Your task to perform on an android device: Go to location settings Image 0: 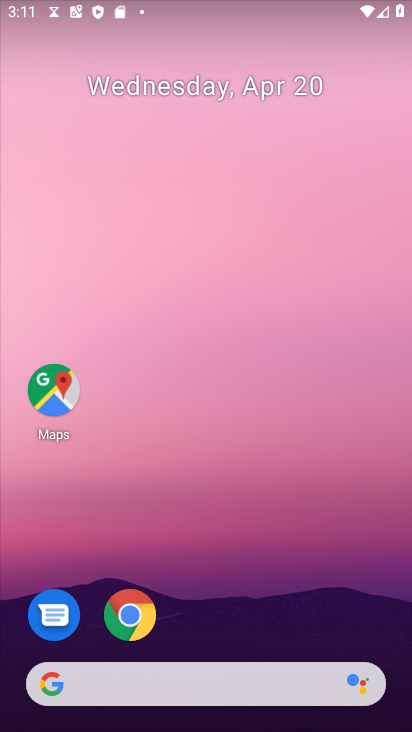
Step 0: drag from (173, 633) to (295, 94)
Your task to perform on an android device: Go to location settings Image 1: 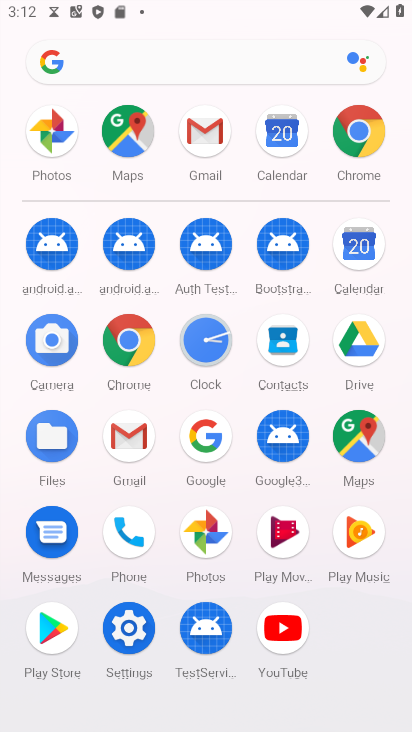
Step 1: click (107, 627)
Your task to perform on an android device: Go to location settings Image 2: 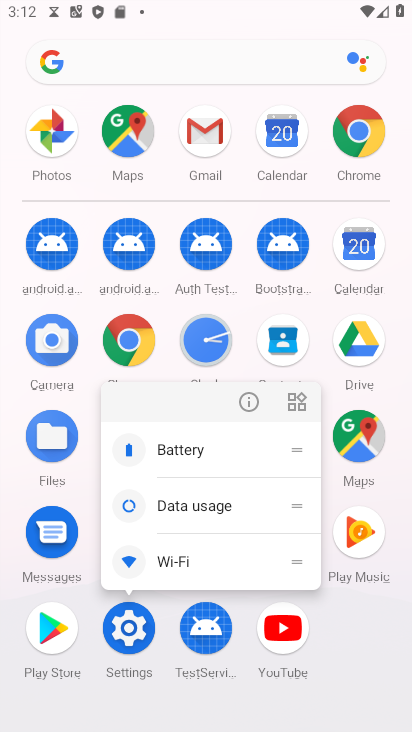
Step 2: click (251, 395)
Your task to perform on an android device: Go to location settings Image 3: 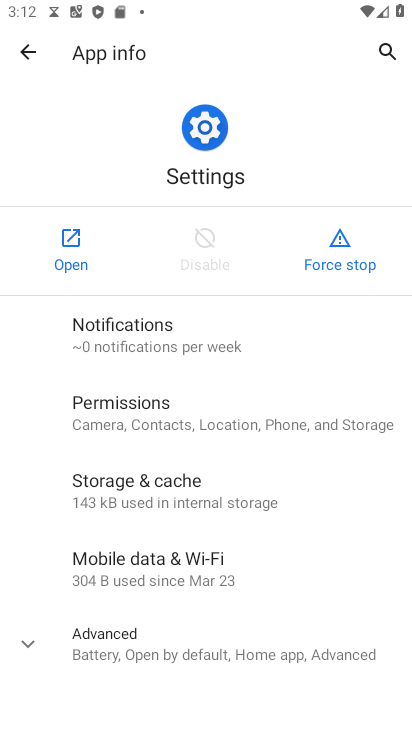
Step 3: click (73, 251)
Your task to perform on an android device: Go to location settings Image 4: 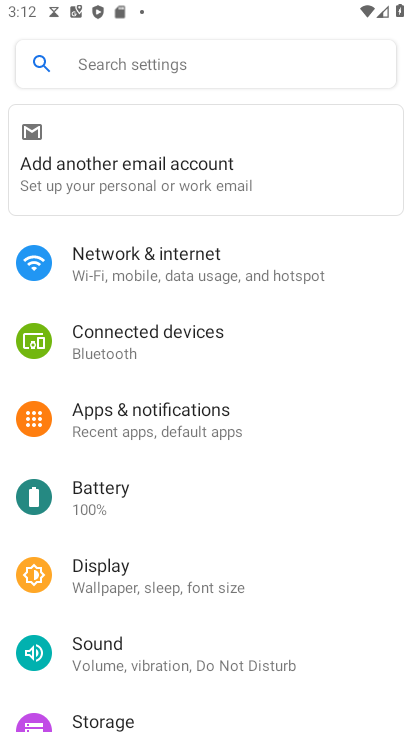
Step 4: drag from (187, 585) to (411, 93)
Your task to perform on an android device: Go to location settings Image 5: 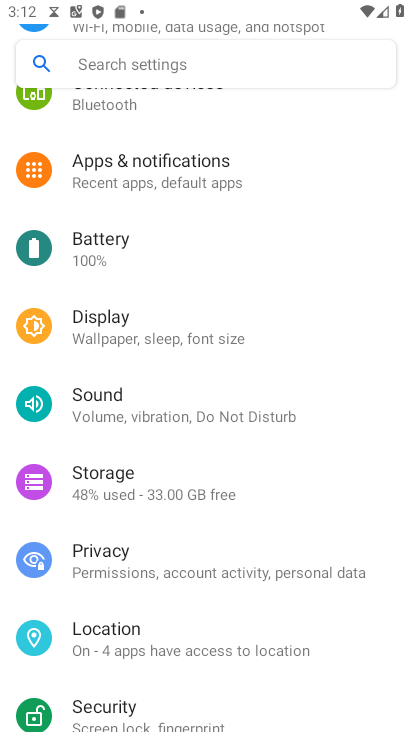
Step 5: click (164, 653)
Your task to perform on an android device: Go to location settings Image 6: 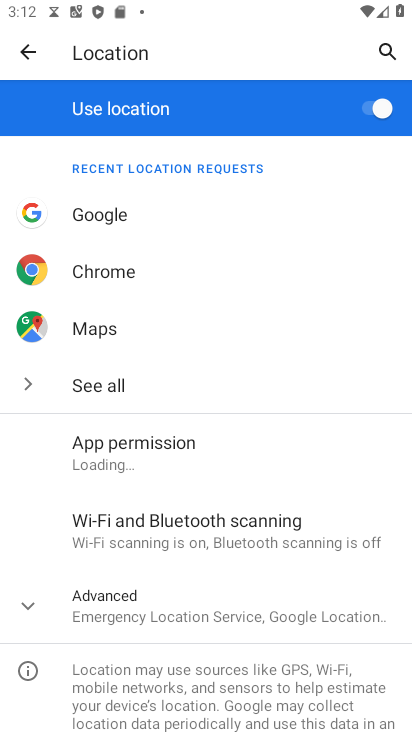
Step 6: drag from (209, 634) to (319, 356)
Your task to perform on an android device: Go to location settings Image 7: 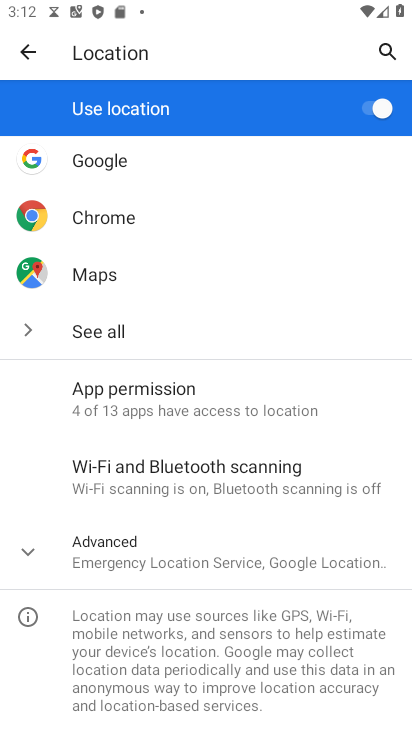
Step 7: click (115, 562)
Your task to perform on an android device: Go to location settings Image 8: 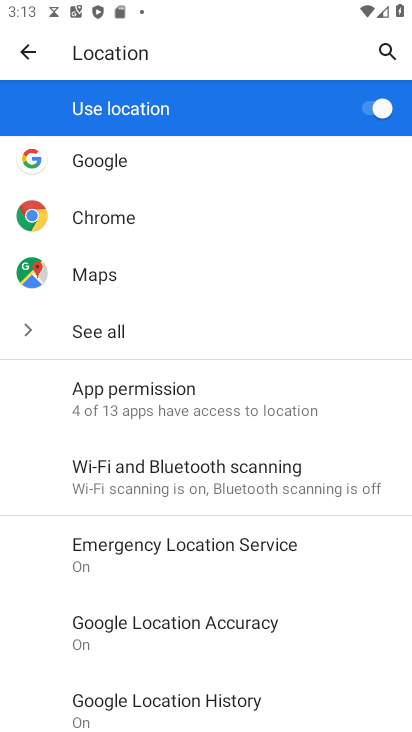
Step 8: task complete